Your task to perform on an android device: add a contact in the contacts app Image 0: 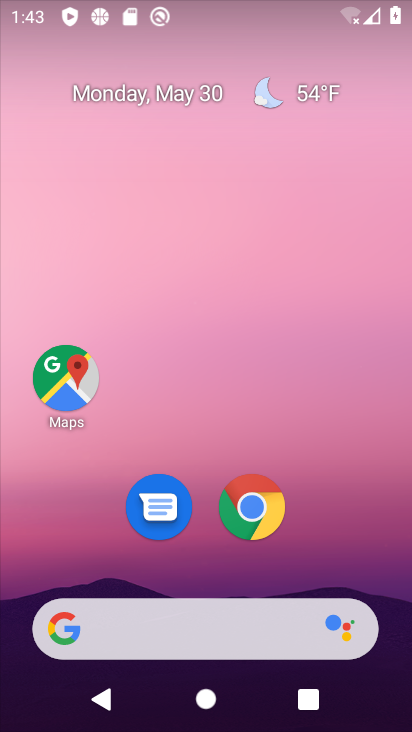
Step 0: drag from (388, 637) to (317, 125)
Your task to perform on an android device: add a contact in the contacts app Image 1: 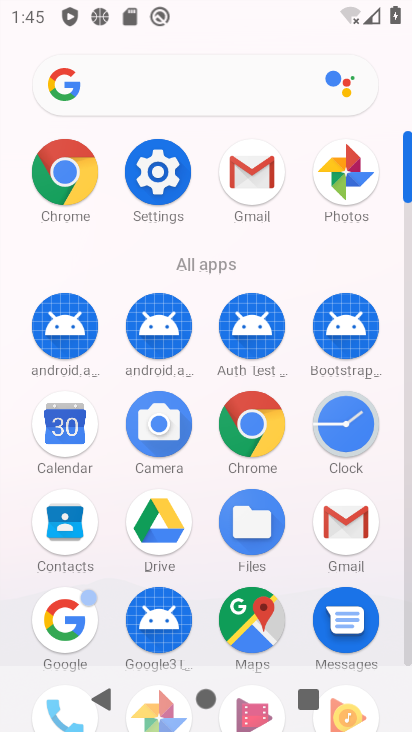
Step 1: click (59, 527)
Your task to perform on an android device: add a contact in the contacts app Image 2: 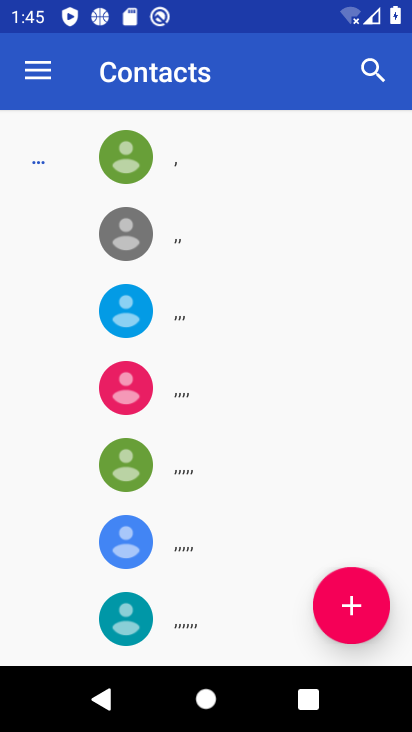
Step 2: click (342, 600)
Your task to perform on an android device: add a contact in the contacts app Image 3: 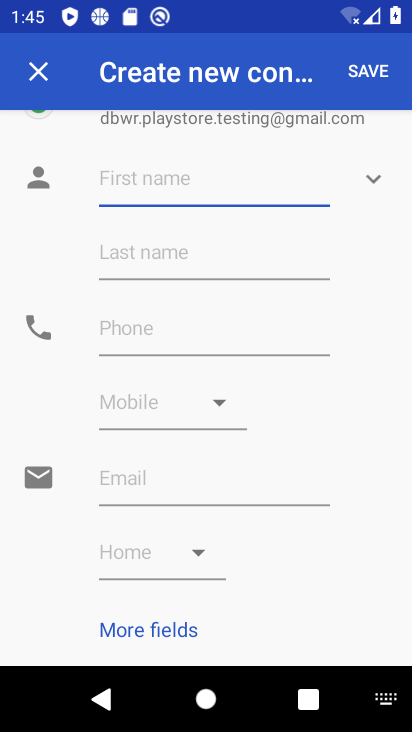
Step 3: type "fizan"
Your task to perform on an android device: add a contact in the contacts app Image 4: 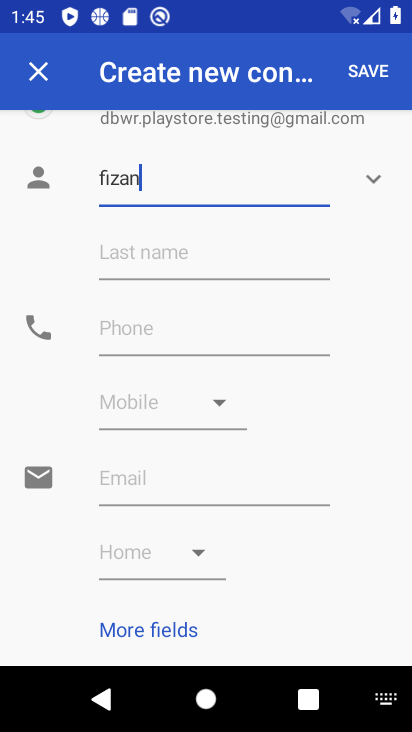
Step 4: click (371, 90)
Your task to perform on an android device: add a contact in the contacts app Image 5: 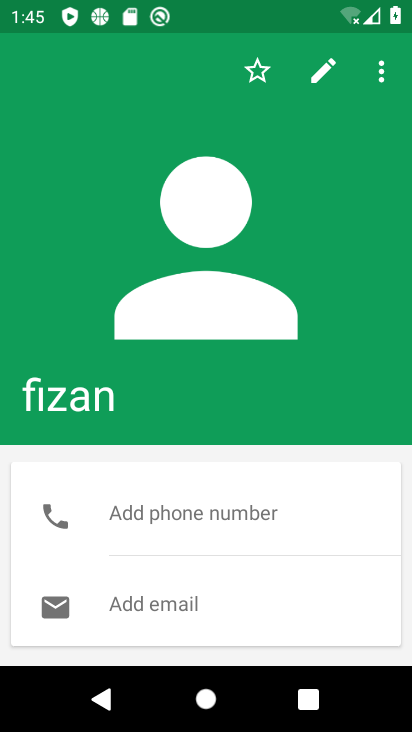
Step 5: task complete